Your task to perform on an android device: turn on location history Image 0: 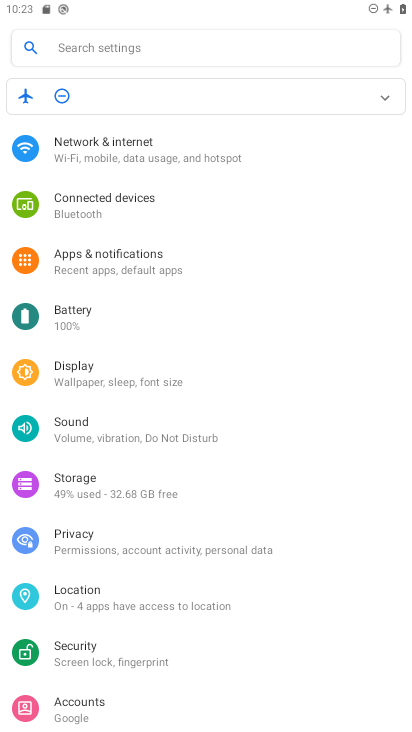
Step 0: click (115, 596)
Your task to perform on an android device: turn on location history Image 1: 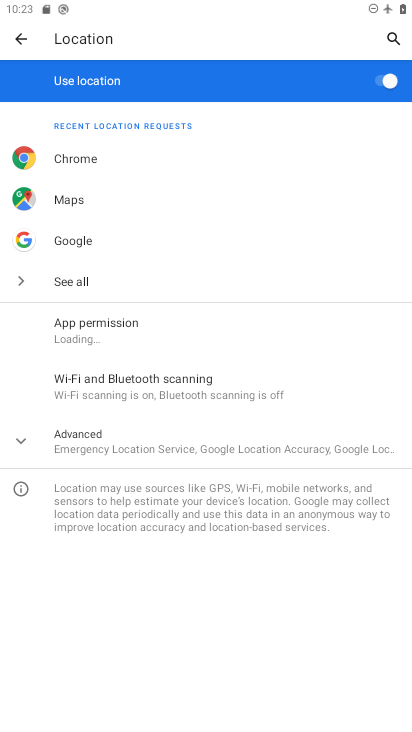
Step 1: click (54, 445)
Your task to perform on an android device: turn on location history Image 2: 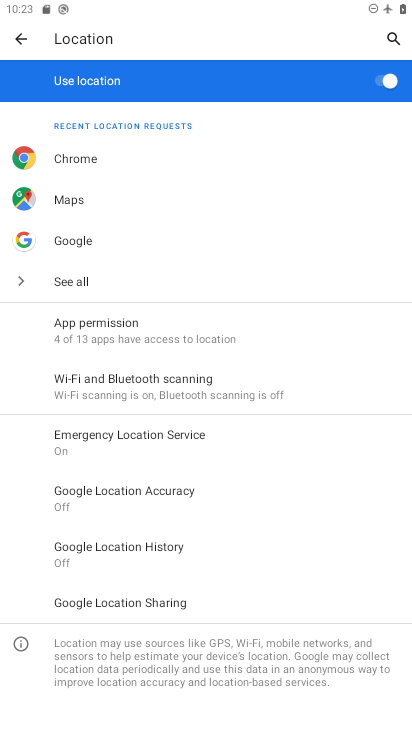
Step 2: click (202, 549)
Your task to perform on an android device: turn on location history Image 3: 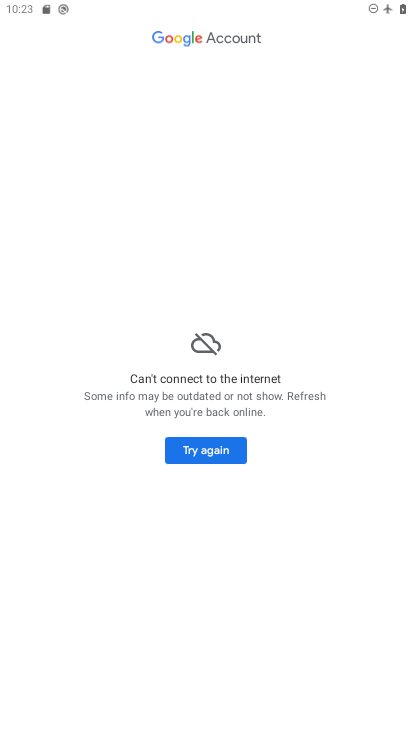
Step 3: task complete